Your task to perform on an android device: Search for asus rog on costco, select the first entry, add it to the cart, then select checkout. Image 0: 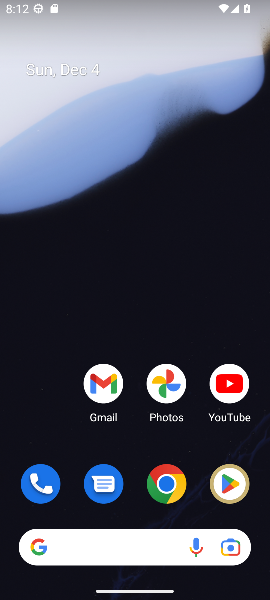
Step 0: click (160, 488)
Your task to perform on an android device: Search for asus rog on costco, select the first entry, add it to the cart, then select checkout. Image 1: 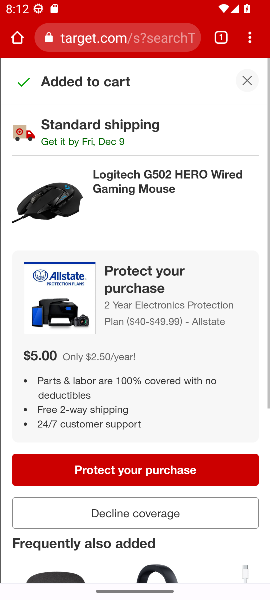
Step 1: click (90, 36)
Your task to perform on an android device: Search for asus rog on costco, select the first entry, add it to the cart, then select checkout. Image 2: 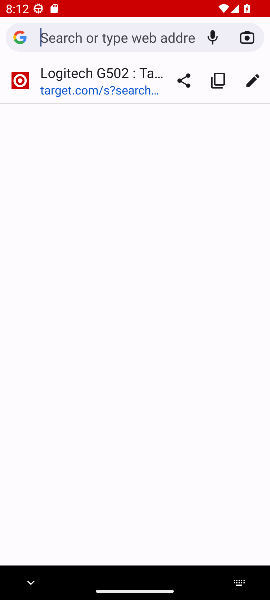
Step 2: type "costco.com"
Your task to perform on an android device: Search for asus rog on costco, select the first entry, add it to the cart, then select checkout. Image 3: 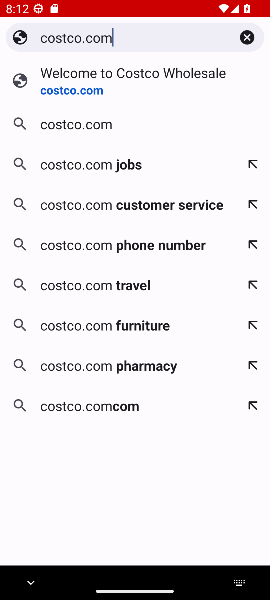
Step 3: click (79, 94)
Your task to perform on an android device: Search for asus rog on costco, select the first entry, add it to the cart, then select checkout. Image 4: 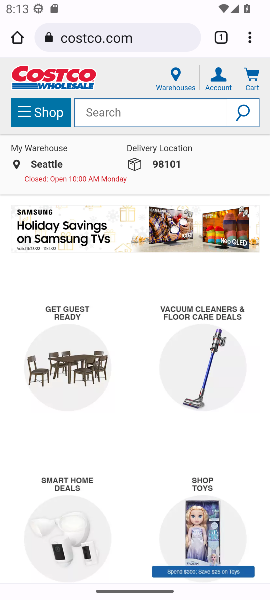
Step 4: click (127, 110)
Your task to perform on an android device: Search for asus rog on costco, select the first entry, add it to the cart, then select checkout. Image 5: 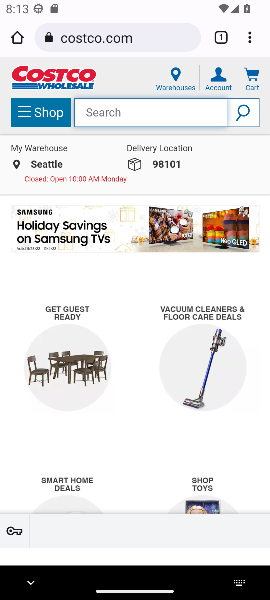
Step 5: type "asus rog"
Your task to perform on an android device: Search for asus rog on costco, select the first entry, add it to the cart, then select checkout. Image 6: 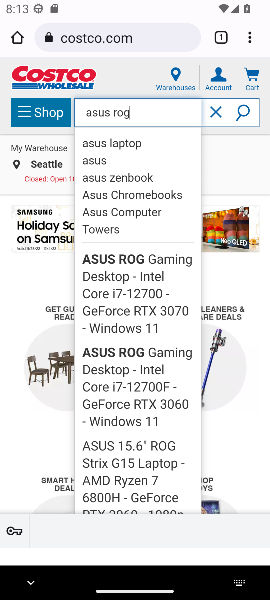
Step 6: click (247, 115)
Your task to perform on an android device: Search for asus rog on costco, select the first entry, add it to the cart, then select checkout. Image 7: 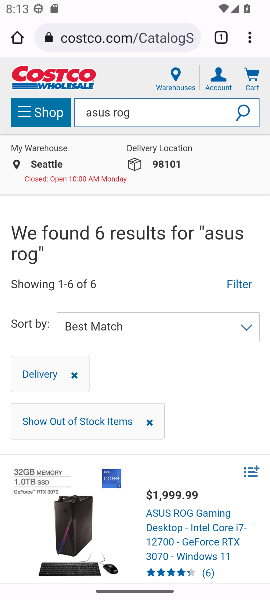
Step 7: drag from (131, 368) to (134, 181)
Your task to perform on an android device: Search for asus rog on costco, select the first entry, add it to the cart, then select checkout. Image 8: 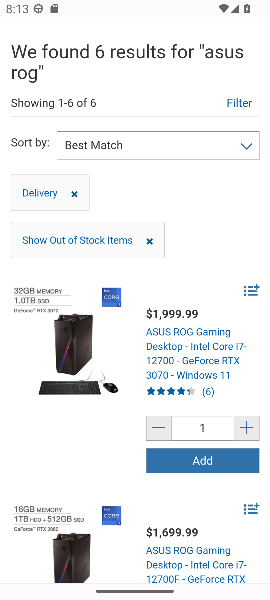
Step 8: click (208, 464)
Your task to perform on an android device: Search for asus rog on costco, select the first entry, add it to the cart, then select checkout. Image 9: 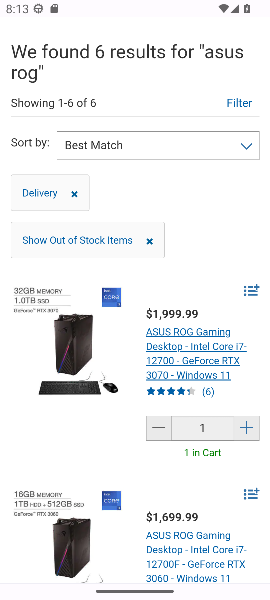
Step 9: drag from (186, 110) to (147, 315)
Your task to perform on an android device: Search for asus rog on costco, select the first entry, add it to the cart, then select checkout. Image 10: 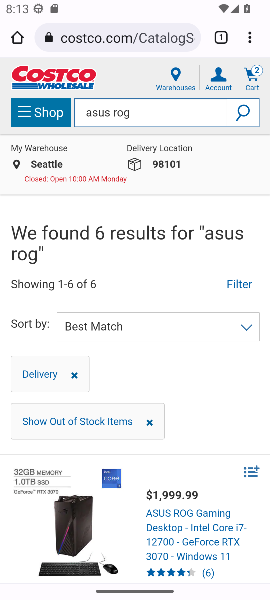
Step 10: click (256, 81)
Your task to perform on an android device: Search for asus rog on costco, select the first entry, add it to the cart, then select checkout. Image 11: 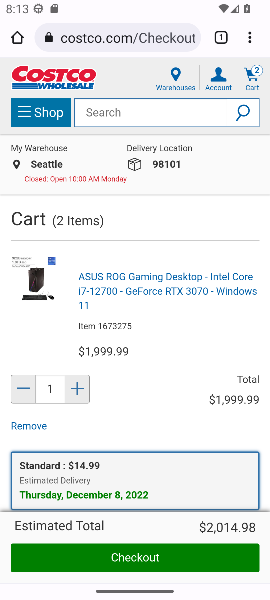
Step 11: click (115, 554)
Your task to perform on an android device: Search for asus rog on costco, select the first entry, add it to the cart, then select checkout. Image 12: 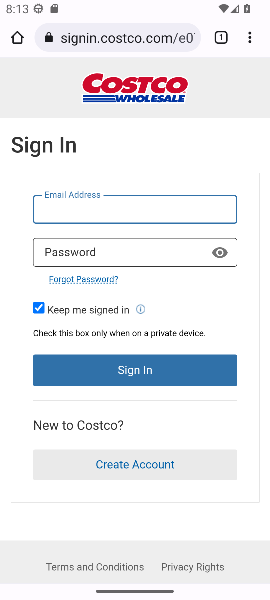
Step 12: task complete